Your task to perform on an android device: Open the calendar app, open the side menu, and click the "Day" option Image 0: 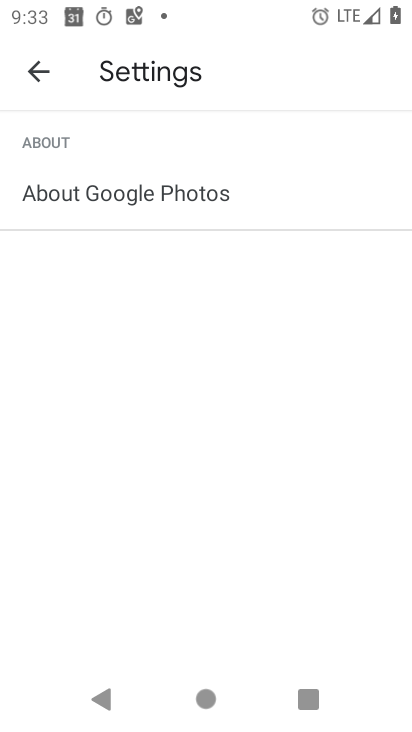
Step 0: press home button
Your task to perform on an android device: Open the calendar app, open the side menu, and click the "Day" option Image 1: 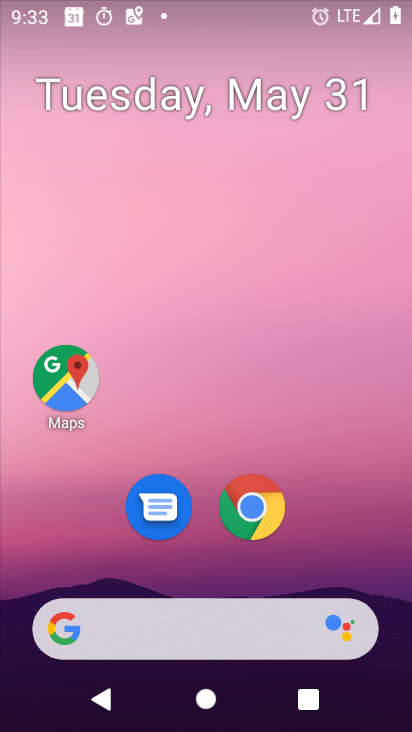
Step 1: drag from (55, 510) to (280, 141)
Your task to perform on an android device: Open the calendar app, open the side menu, and click the "Day" option Image 2: 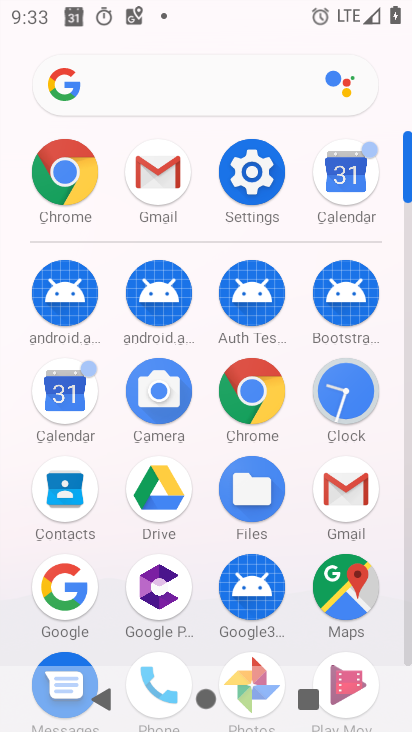
Step 2: click (69, 374)
Your task to perform on an android device: Open the calendar app, open the side menu, and click the "Day" option Image 3: 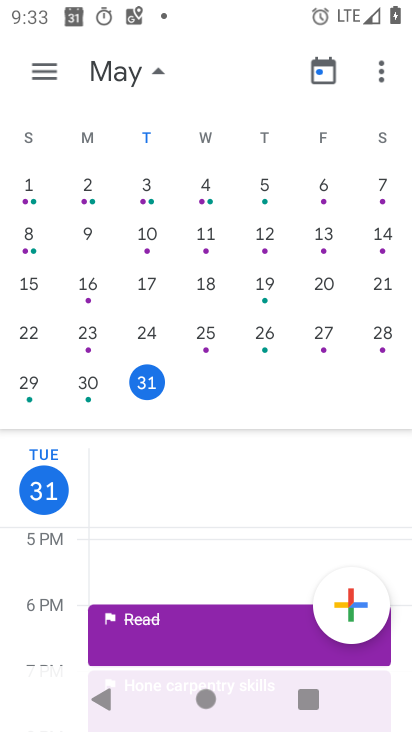
Step 3: click (31, 66)
Your task to perform on an android device: Open the calendar app, open the side menu, and click the "Day" option Image 4: 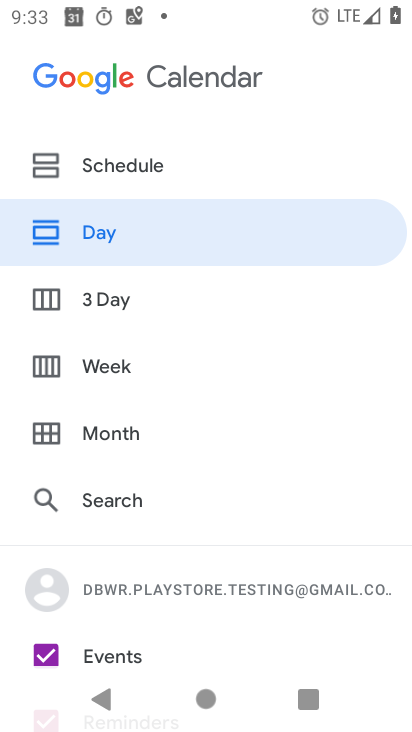
Step 4: click (254, 229)
Your task to perform on an android device: Open the calendar app, open the side menu, and click the "Day" option Image 5: 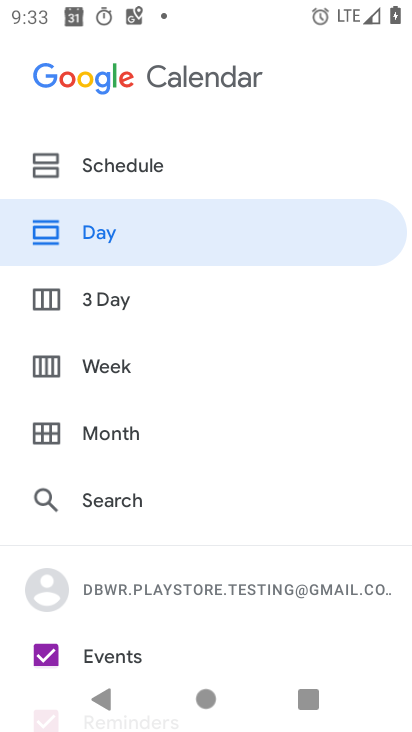
Step 5: task complete